Your task to perform on an android device: toggle wifi Image 0: 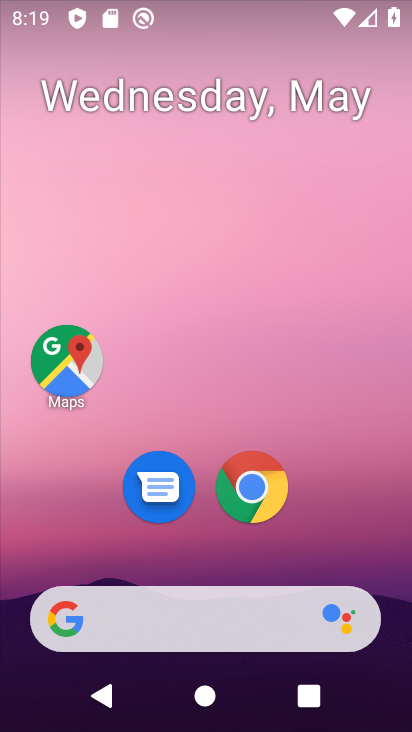
Step 0: drag from (183, 558) to (193, 151)
Your task to perform on an android device: toggle wifi Image 1: 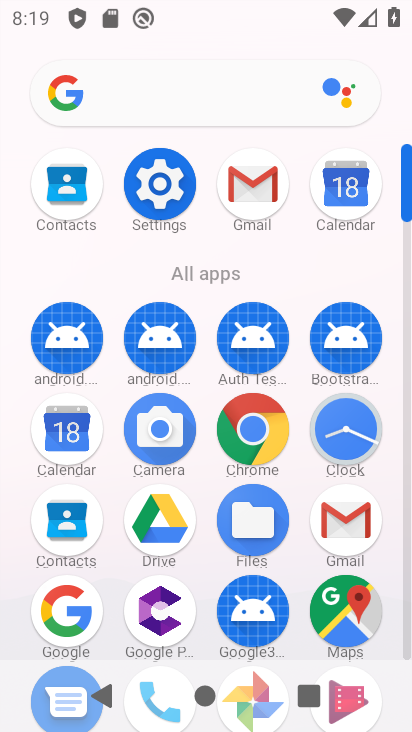
Step 1: click (185, 164)
Your task to perform on an android device: toggle wifi Image 2: 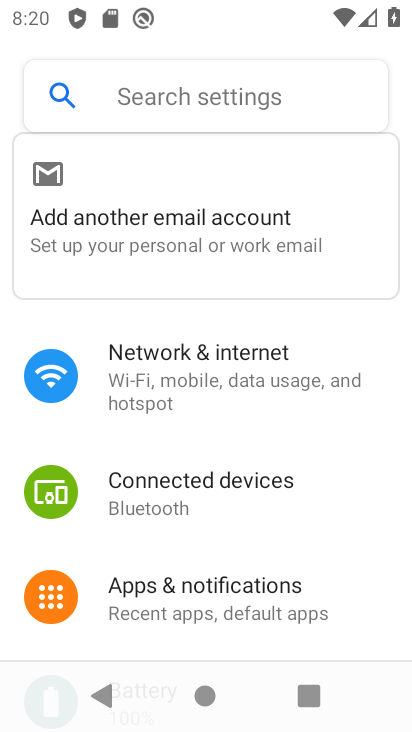
Step 2: click (161, 393)
Your task to perform on an android device: toggle wifi Image 3: 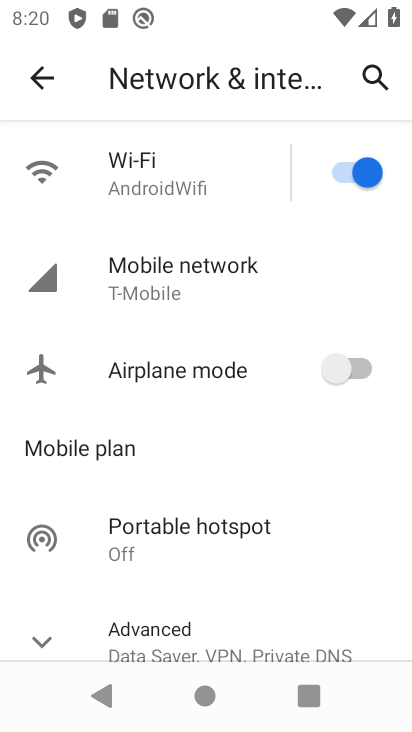
Step 3: click (333, 168)
Your task to perform on an android device: toggle wifi Image 4: 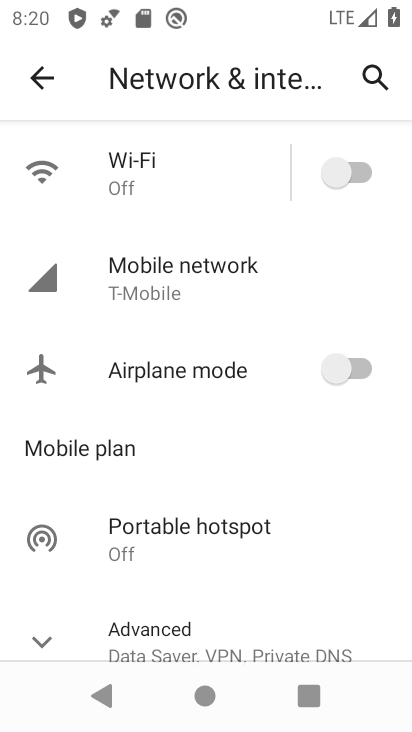
Step 4: task complete